Your task to perform on an android device: allow notifications from all sites in the chrome app Image 0: 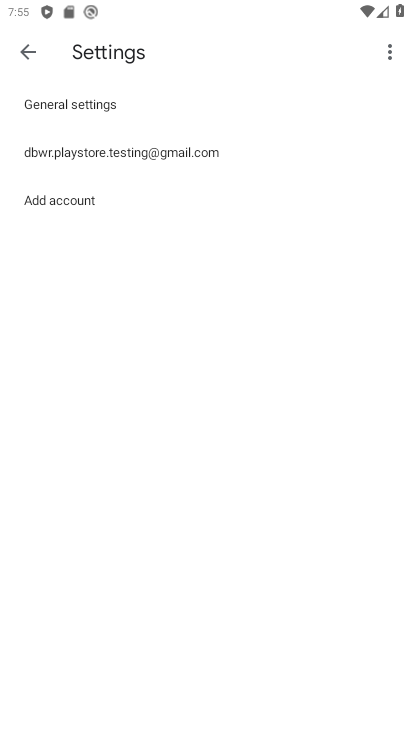
Step 0: press home button
Your task to perform on an android device: allow notifications from all sites in the chrome app Image 1: 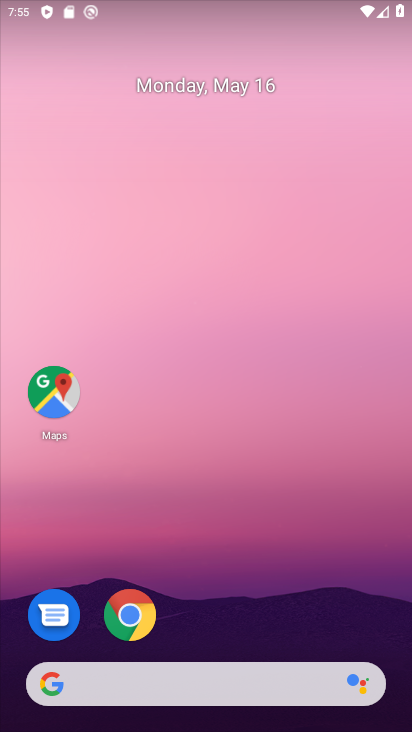
Step 1: drag from (290, 648) to (307, 139)
Your task to perform on an android device: allow notifications from all sites in the chrome app Image 2: 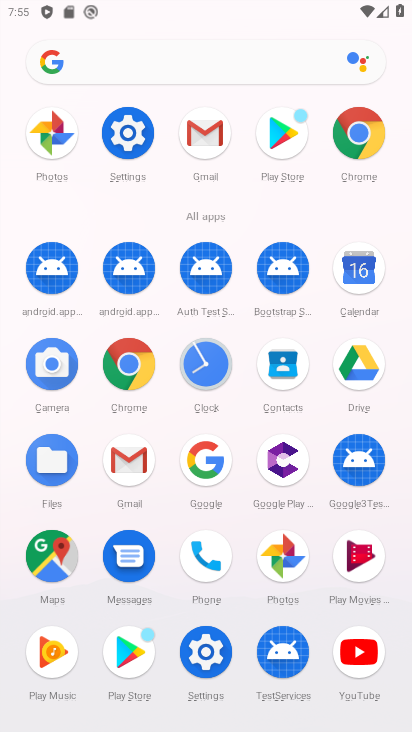
Step 2: click (368, 176)
Your task to perform on an android device: allow notifications from all sites in the chrome app Image 3: 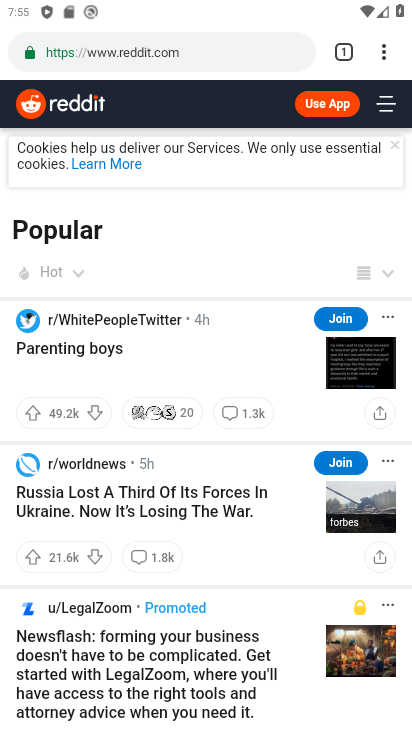
Step 3: click (386, 54)
Your task to perform on an android device: allow notifications from all sites in the chrome app Image 4: 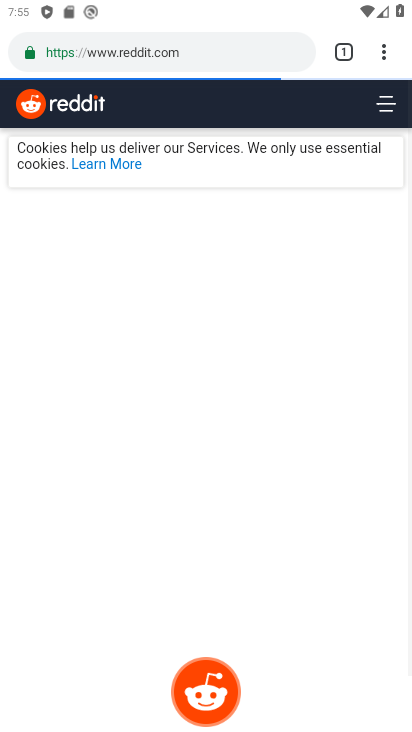
Step 4: click (385, 61)
Your task to perform on an android device: allow notifications from all sites in the chrome app Image 5: 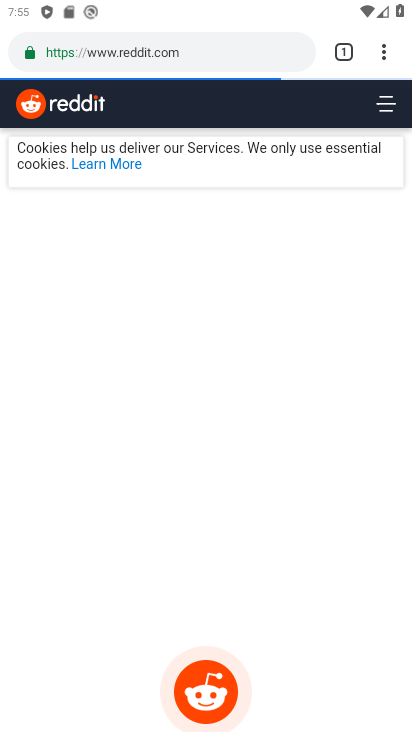
Step 5: click (388, 48)
Your task to perform on an android device: allow notifications from all sites in the chrome app Image 6: 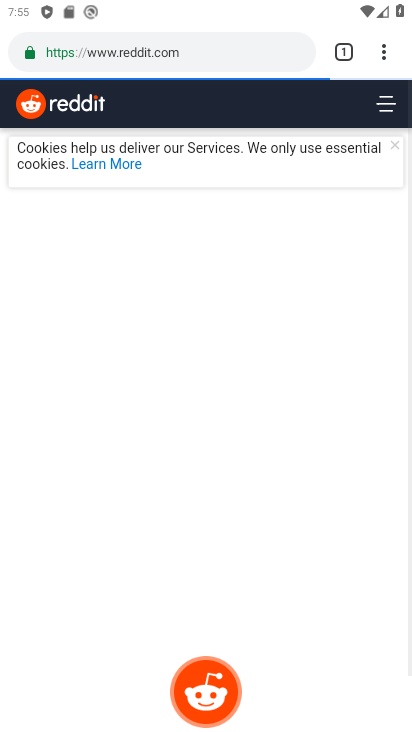
Step 6: click (388, 61)
Your task to perform on an android device: allow notifications from all sites in the chrome app Image 7: 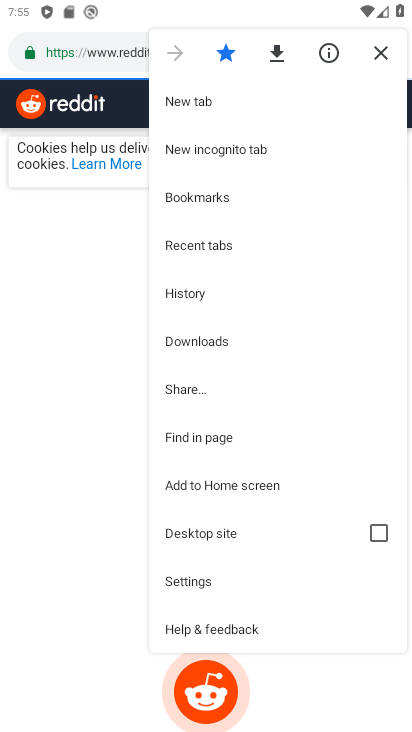
Step 7: drag from (265, 485) to (333, 206)
Your task to perform on an android device: allow notifications from all sites in the chrome app Image 8: 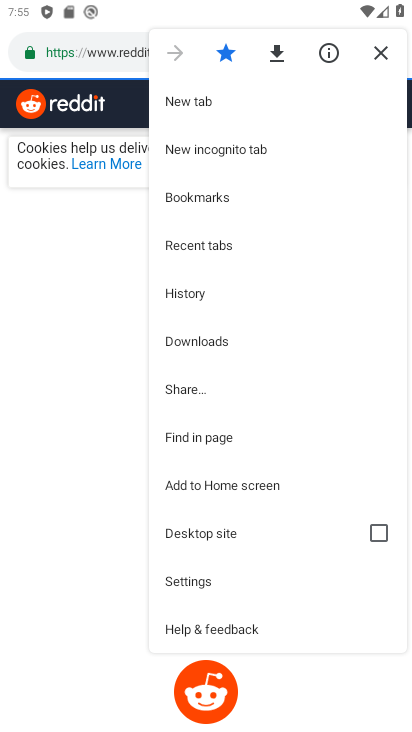
Step 8: click (249, 588)
Your task to perform on an android device: allow notifications from all sites in the chrome app Image 9: 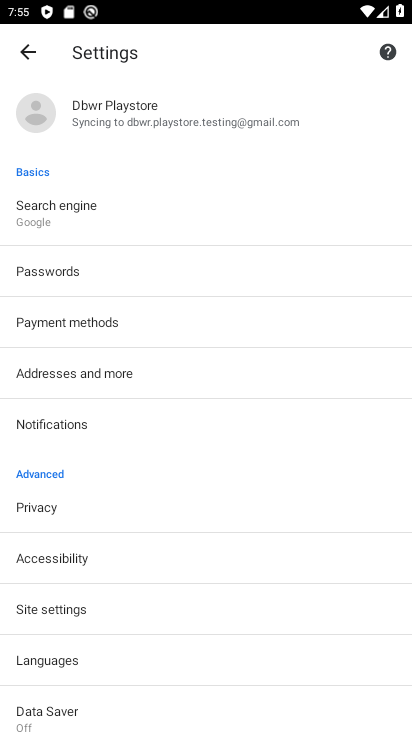
Step 9: click (63, 424)
Your task to perform on an android device: allow notifications from all sites in the chrome app Image 10: 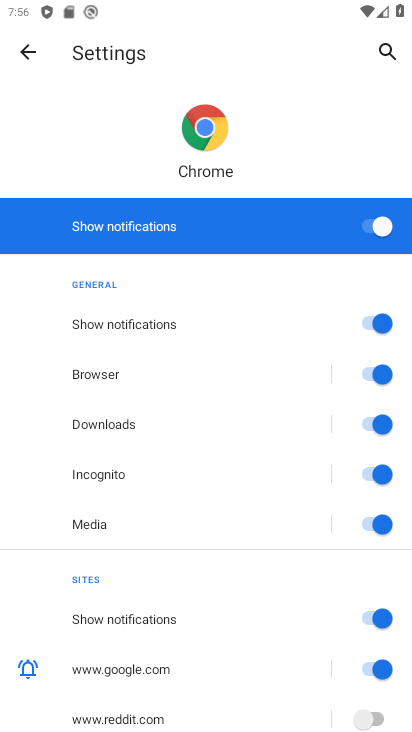
Step 10: task complete